Your task to perform on an android device: Empty the shopping cart on bestbuy. Add "razer huntsman" to the cart on bestbuy Image 0: 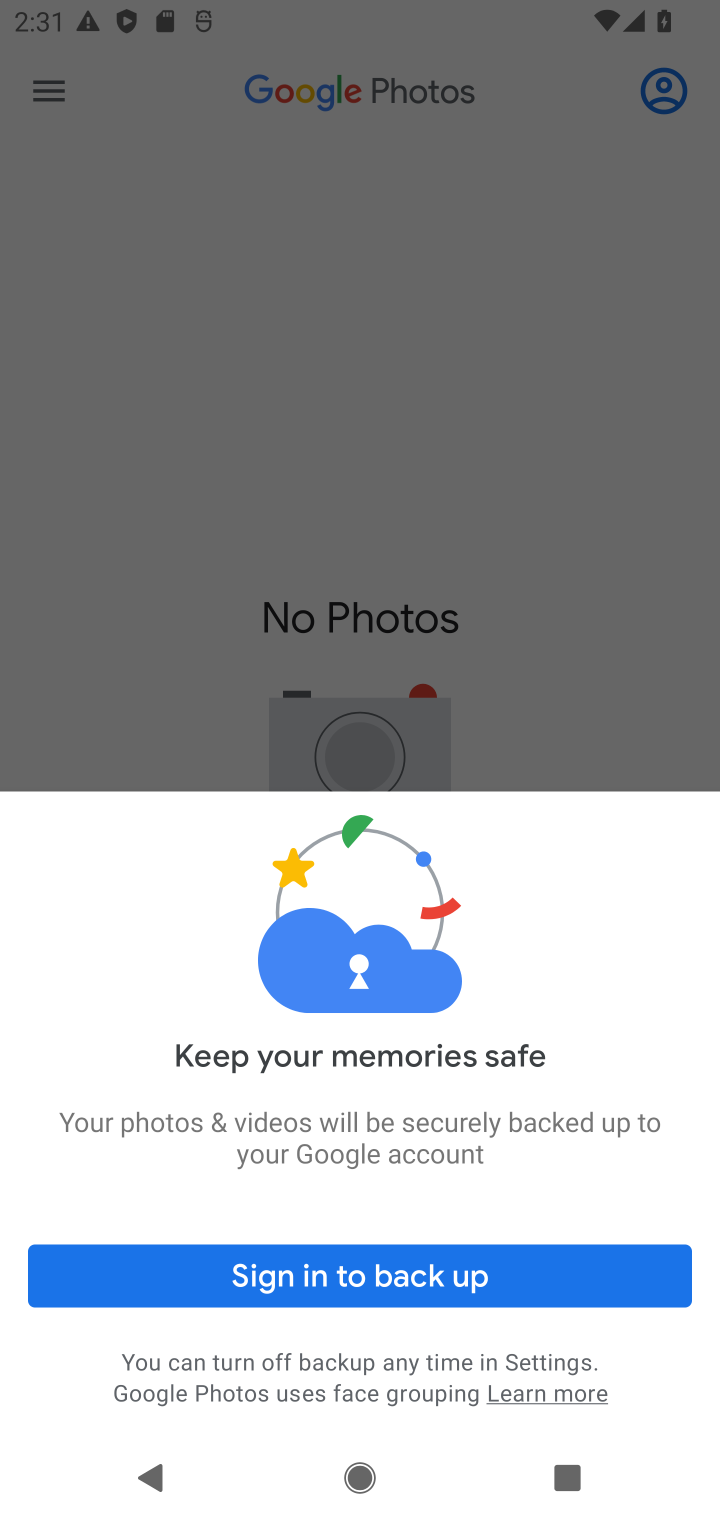
Step 0: press home button
Your task to perform on an android device: Empty the shopping cart on bestbuy. Add "razer huntsman" to the cart on bestbuy Image 1: 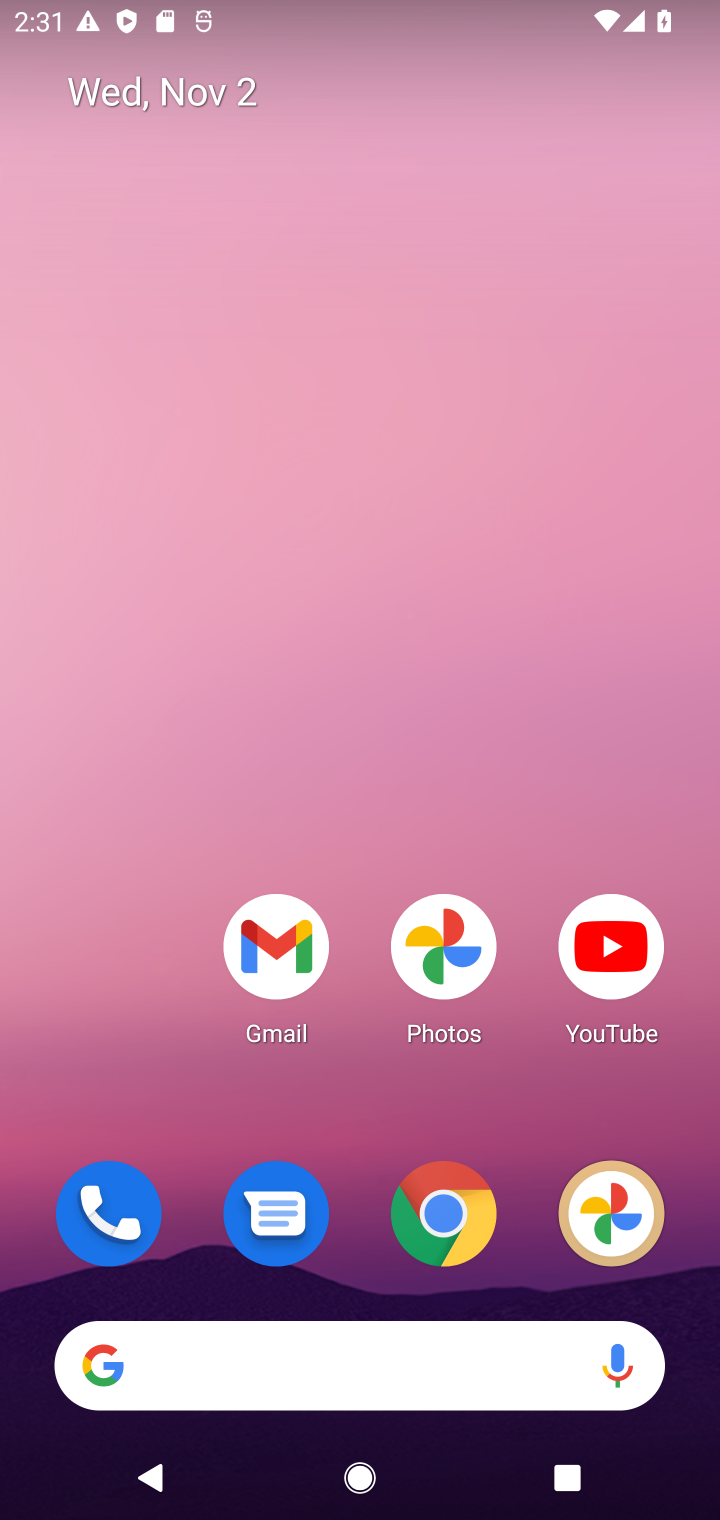
Step 1: click (431, 1198)
Your task to perform on an android device: Empty the shopping cart on bestbuy. Add "razer huntsman" to the cart on bestbuy Image 2: 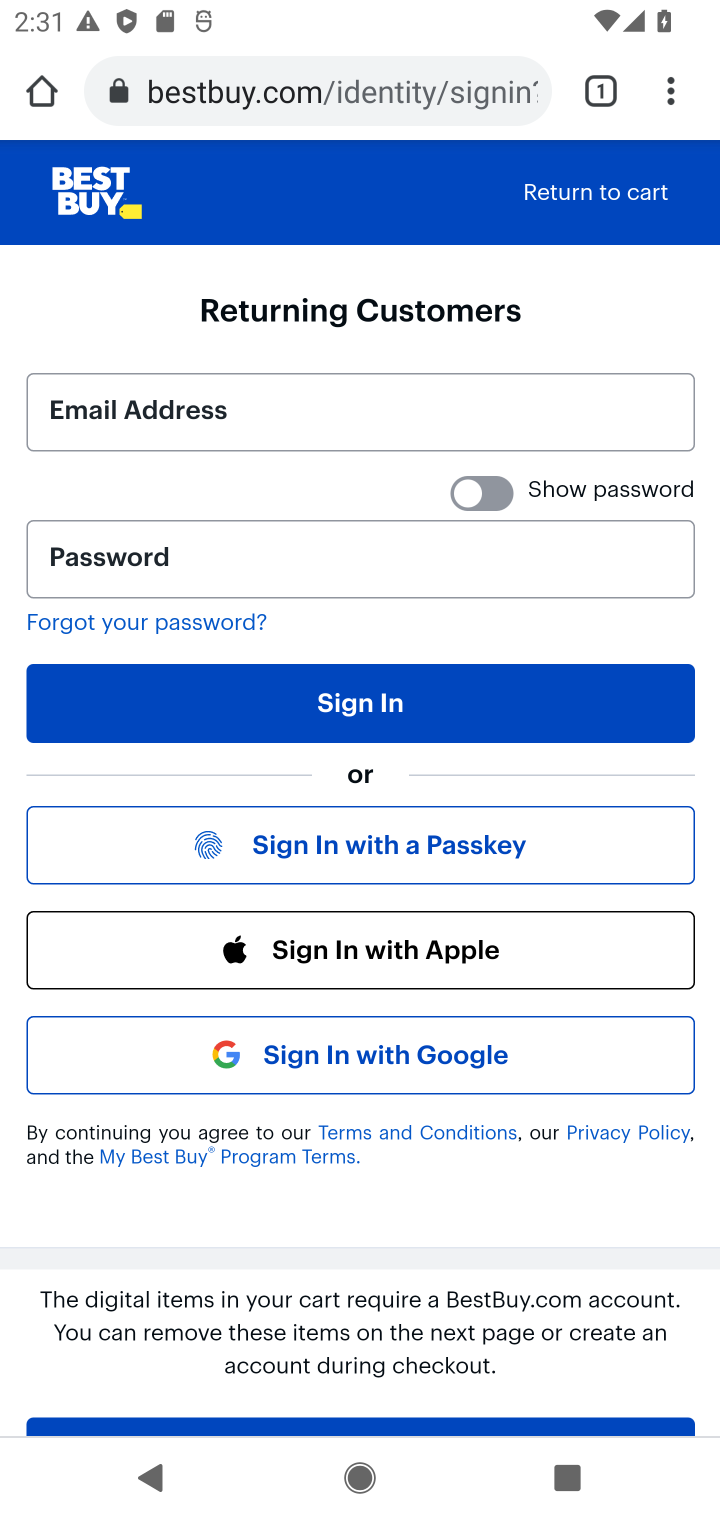
Step 2: click (579, 187)
Your task to perform on an android device: Empty the shopping cart on bestbuy. Add "razer huntsman" to the cart on bestbuy Image 3: 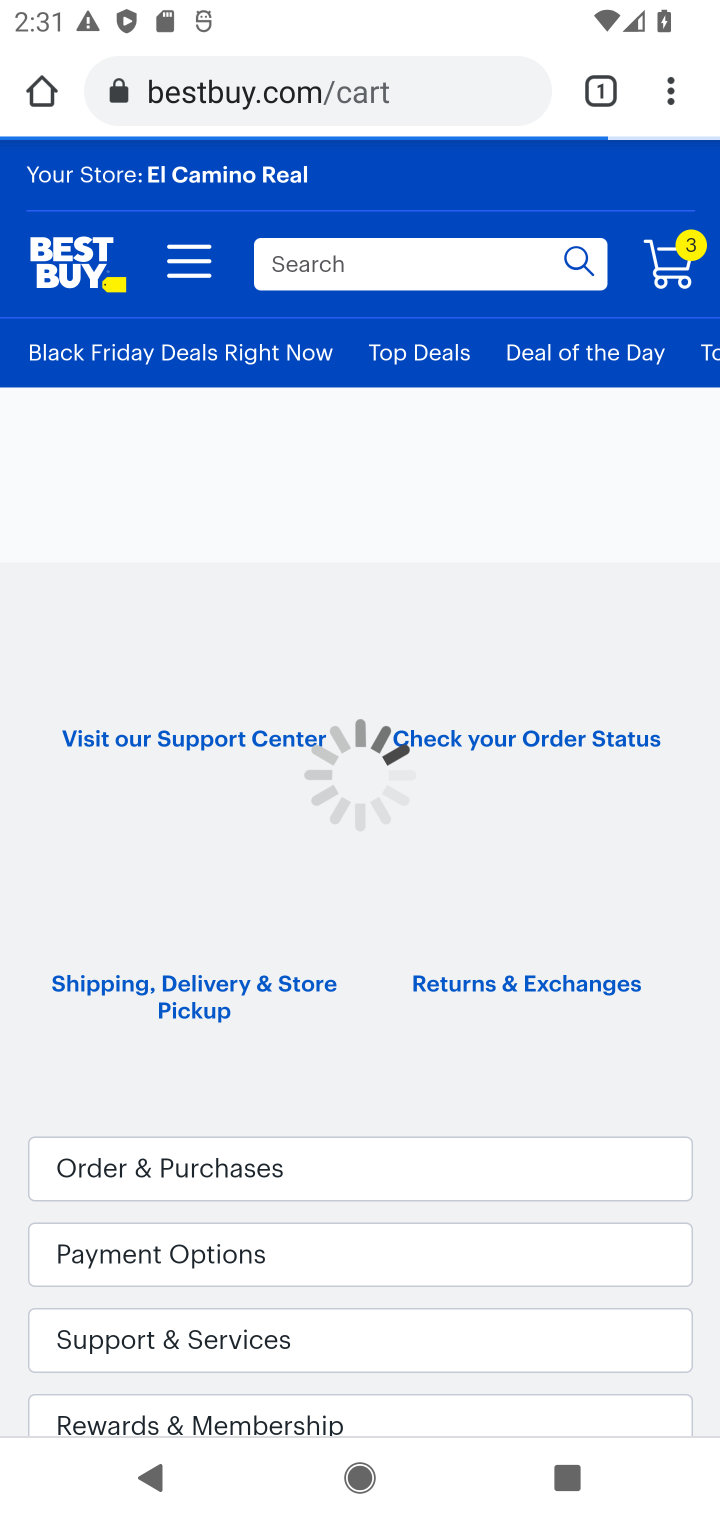
Step 3: click (672, 276)
Your task to perform on an android device: Empty the shopping cart on bestbuy. Add "razer huntsman" to the cart on bestbuy Image 4: 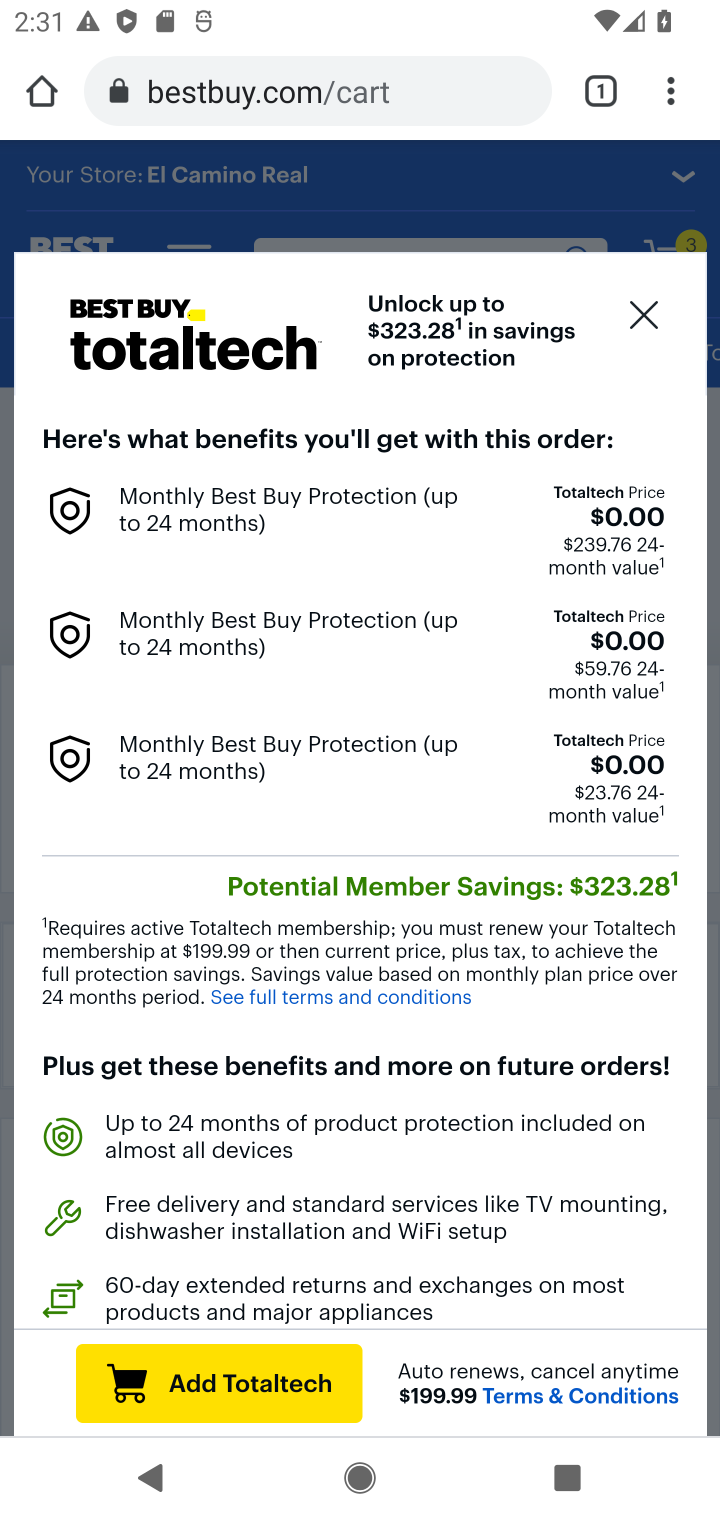
Step 4: click (641, 320)
Your task to perform on an android device: Empty the shopping cart on bestbuy. Add "razer huntsman" to the cart on bestbuy Image 5: 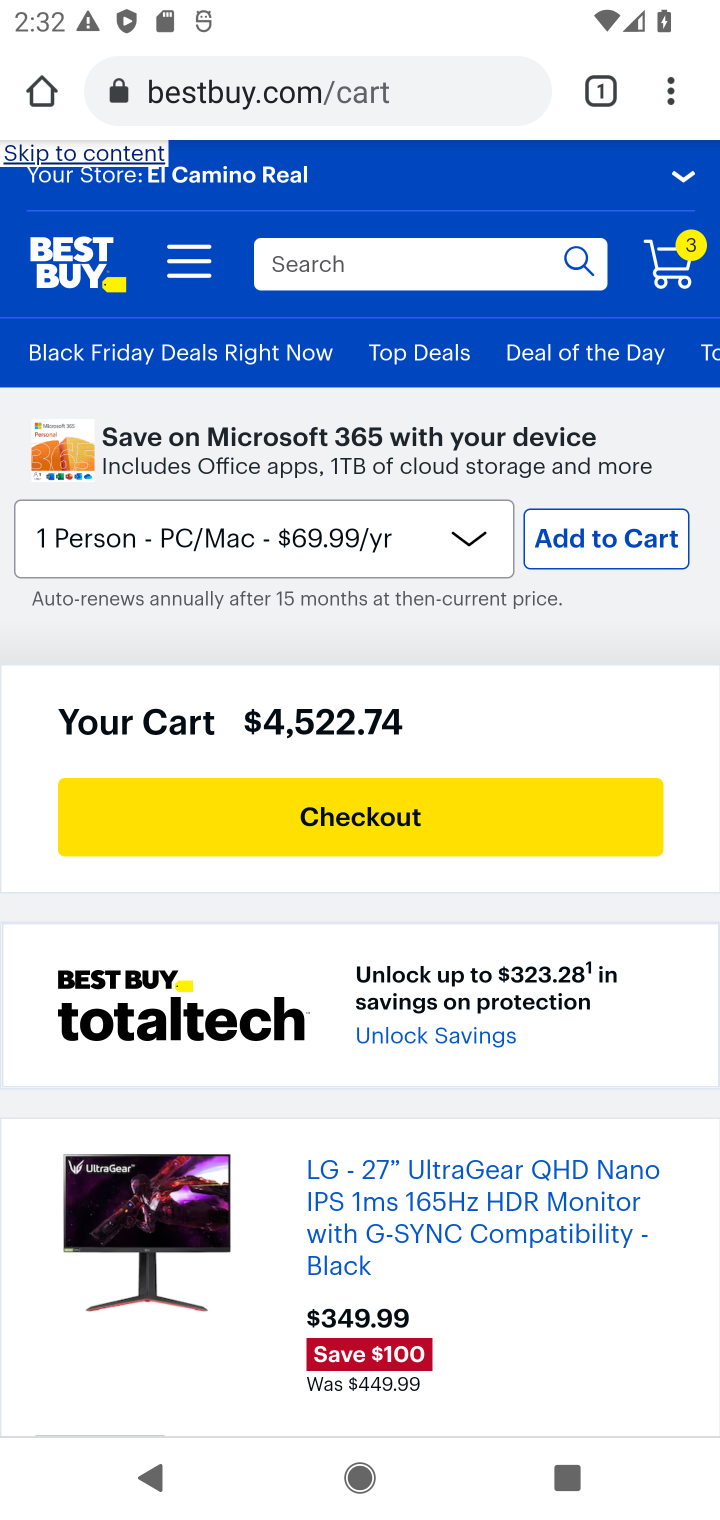
Step 5: drag from (628, 907) to (403, 74)
Your task to perform on an android device: Empty the shopping cart on bestbuy. Add "razer huntsman" to the cart on bestbuy Image 6: 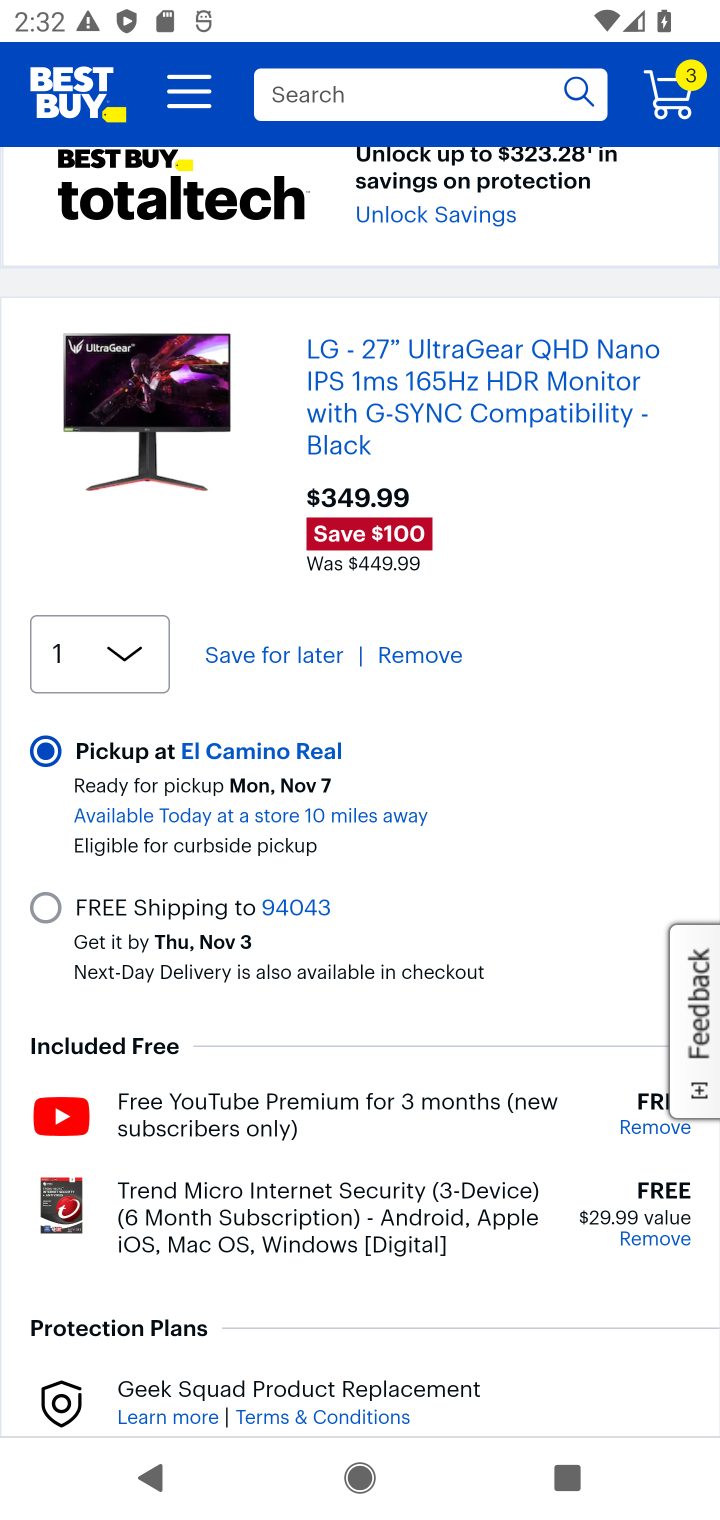
Step 6: click (409, 653)
Your task to perform on an android device: Empty the shopping cart on bestbuy. Add "razer huntsman" to the cart on bestbuy Image 7: 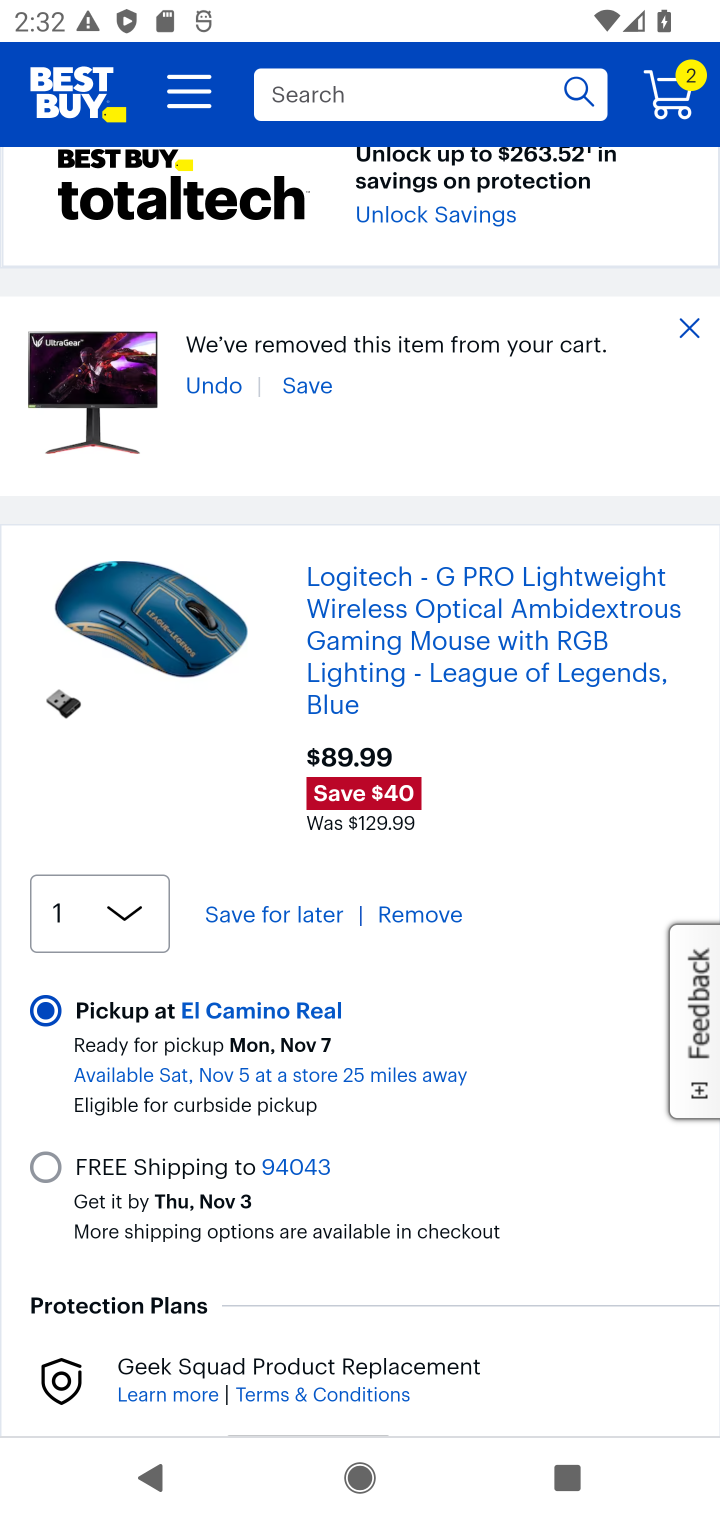
Step 7: click (410, 920)
Your task to perform on an android device: Empty the shopping cart on bestbuy. Add "razer huntsman" to the cart on bestbuy Image 8: 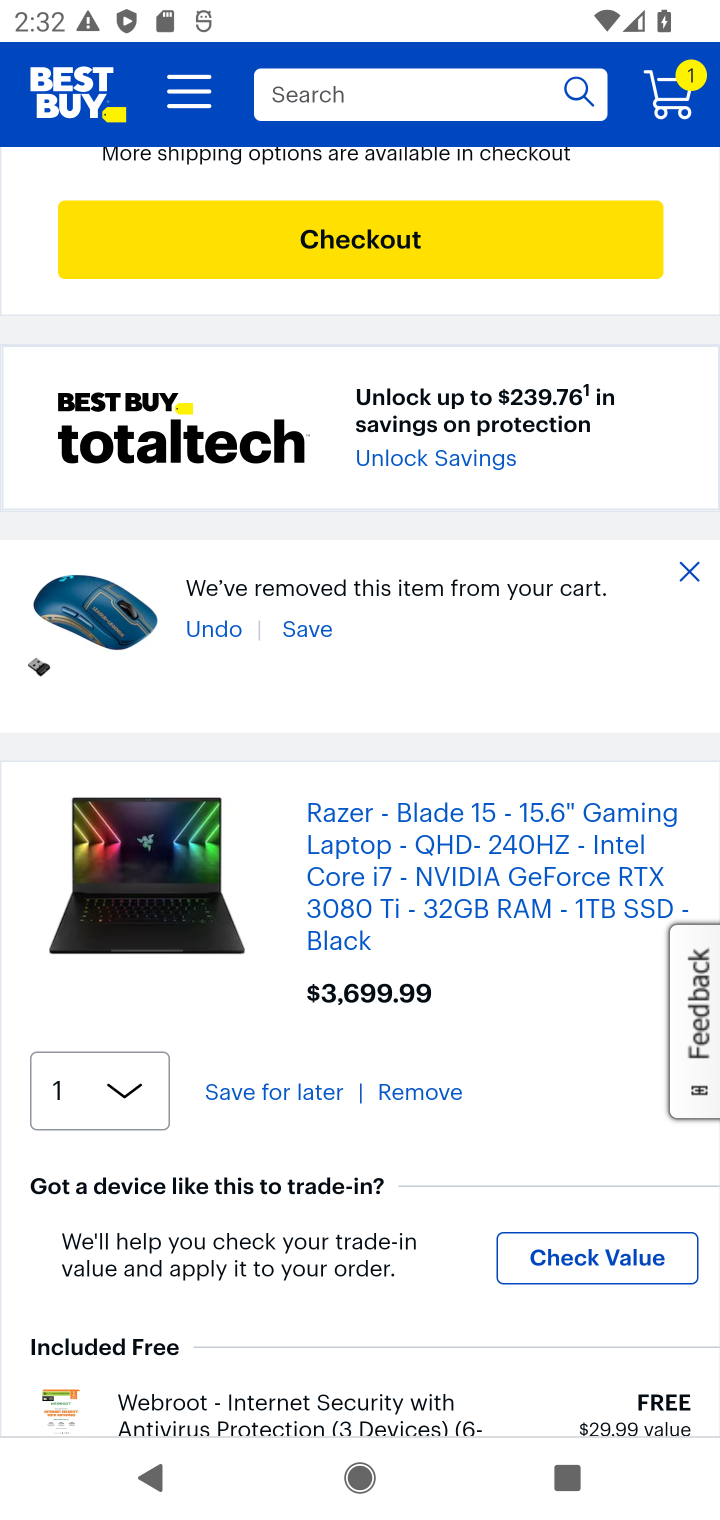
Step 8: click (416, 1099)
Your task to perform on an android device: Empty the shopping cart on bestbuy. Add "razer huntsman" to the cart on bestbuy Image 9: 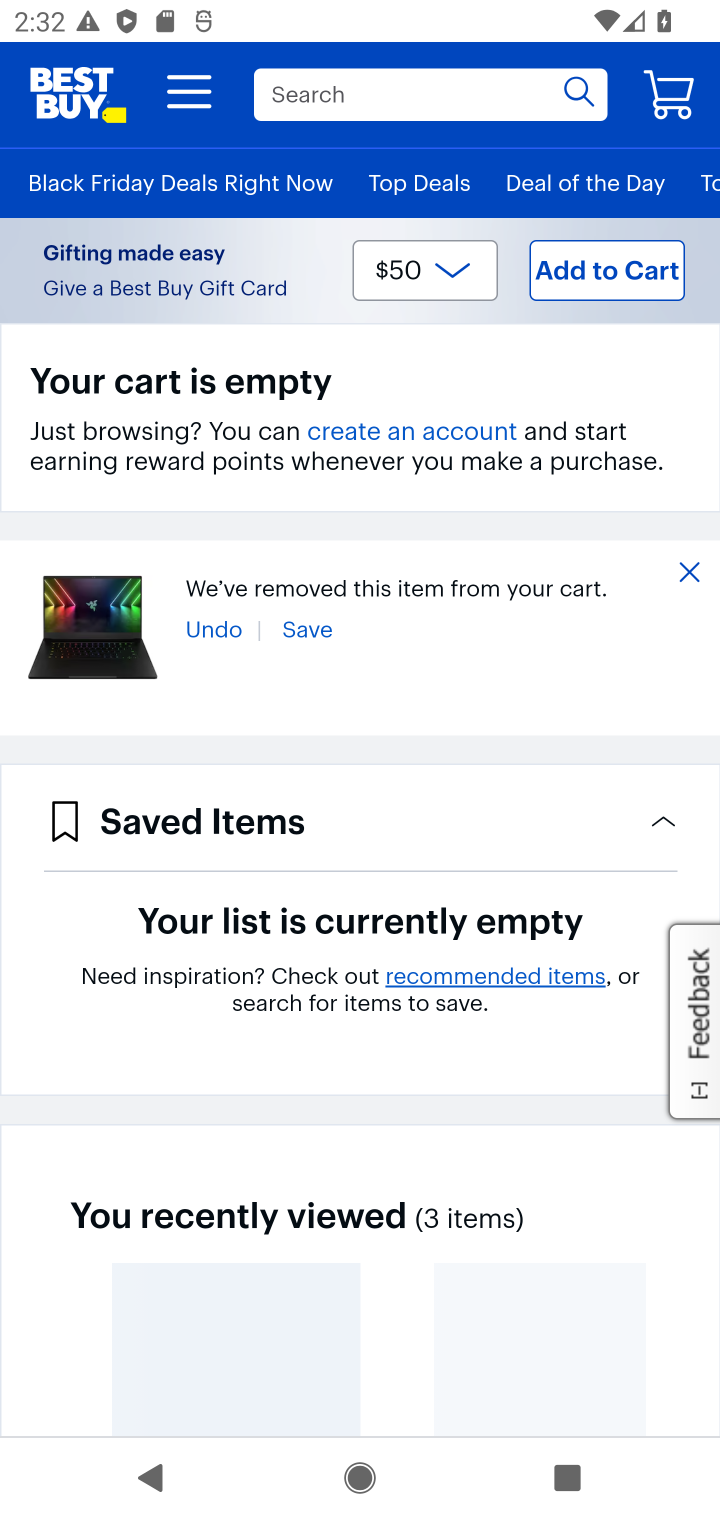
Step 9: click (388, 93)
Your task to perform on an android device: Empty the shopping cart on bestbuy. Add "razer huntsman" to the cart on bestbuy Image 10: 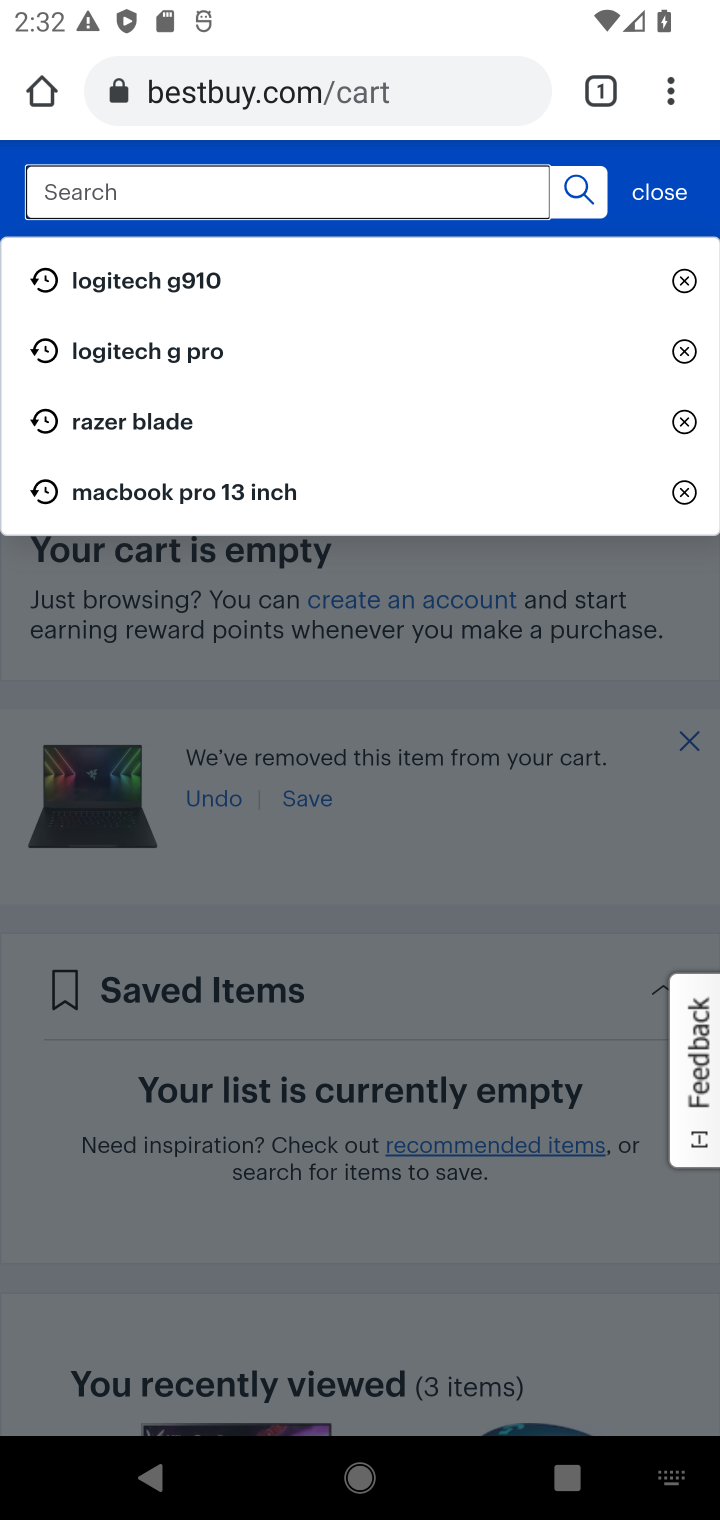
Step 10: type "razer huntsman"
Your task to perform on an android device: Empty the shopping cart on bestbuy. Add "razer huntsman" to the cart on bestbuy Image 11: 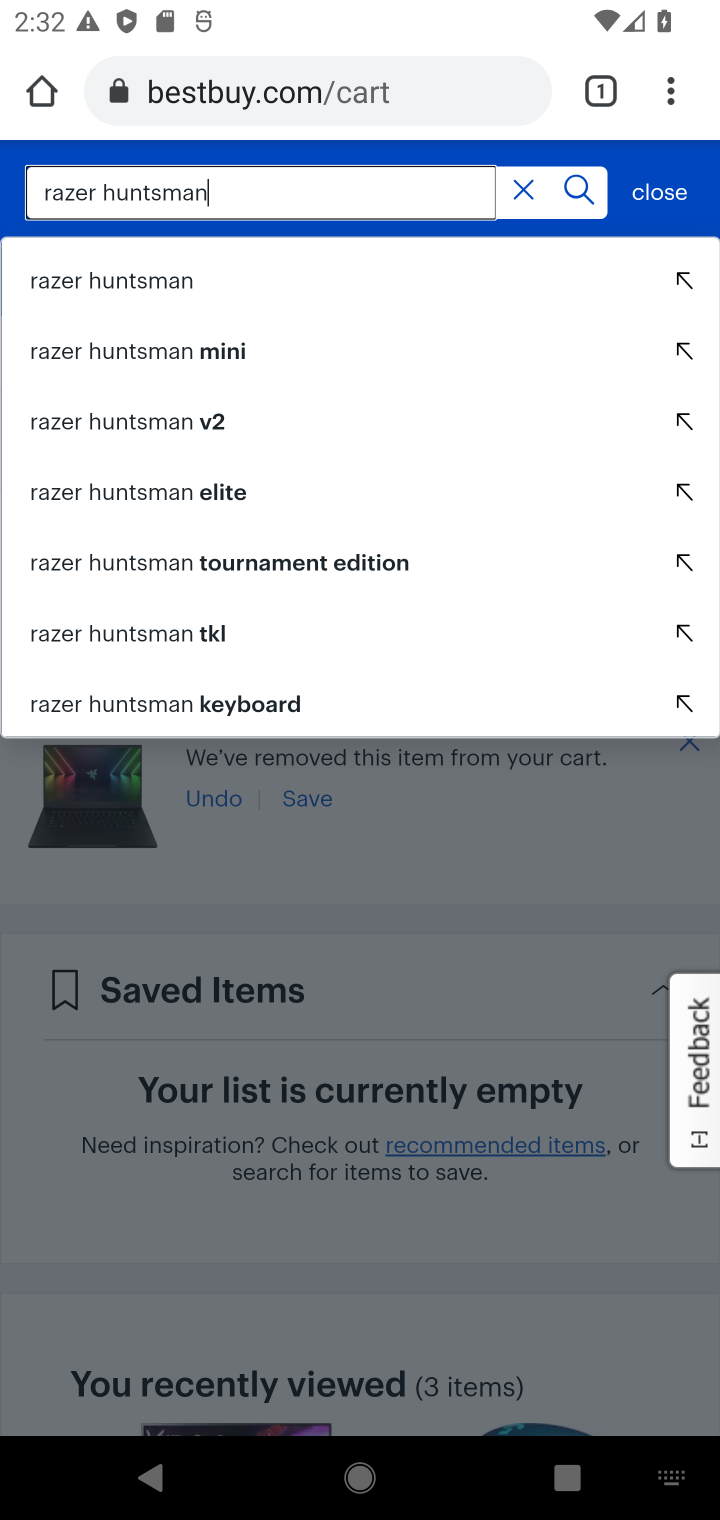
Step 11: click (118, 294)
Your task to perform on an android device: Empty the shopping cart on bestbuy. Add "razer huntsman" to the cart on bestbuy Image 12: 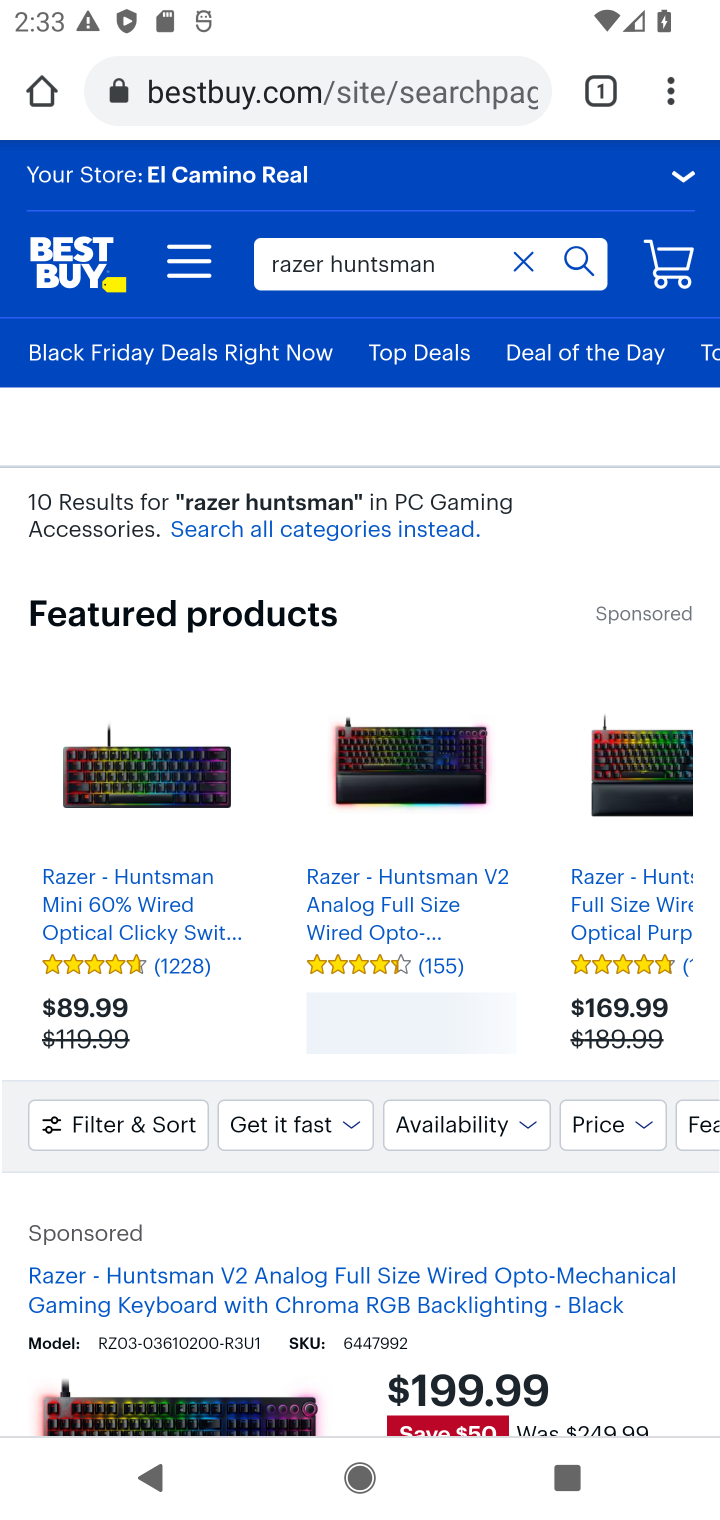
Step 12: drag from (336, 1185) to (240, 636)
Your task to perform on an android device: Empty the shopping cart on bestbuy. Add "razer huntsman" to the cart on bestbuy Image 13: 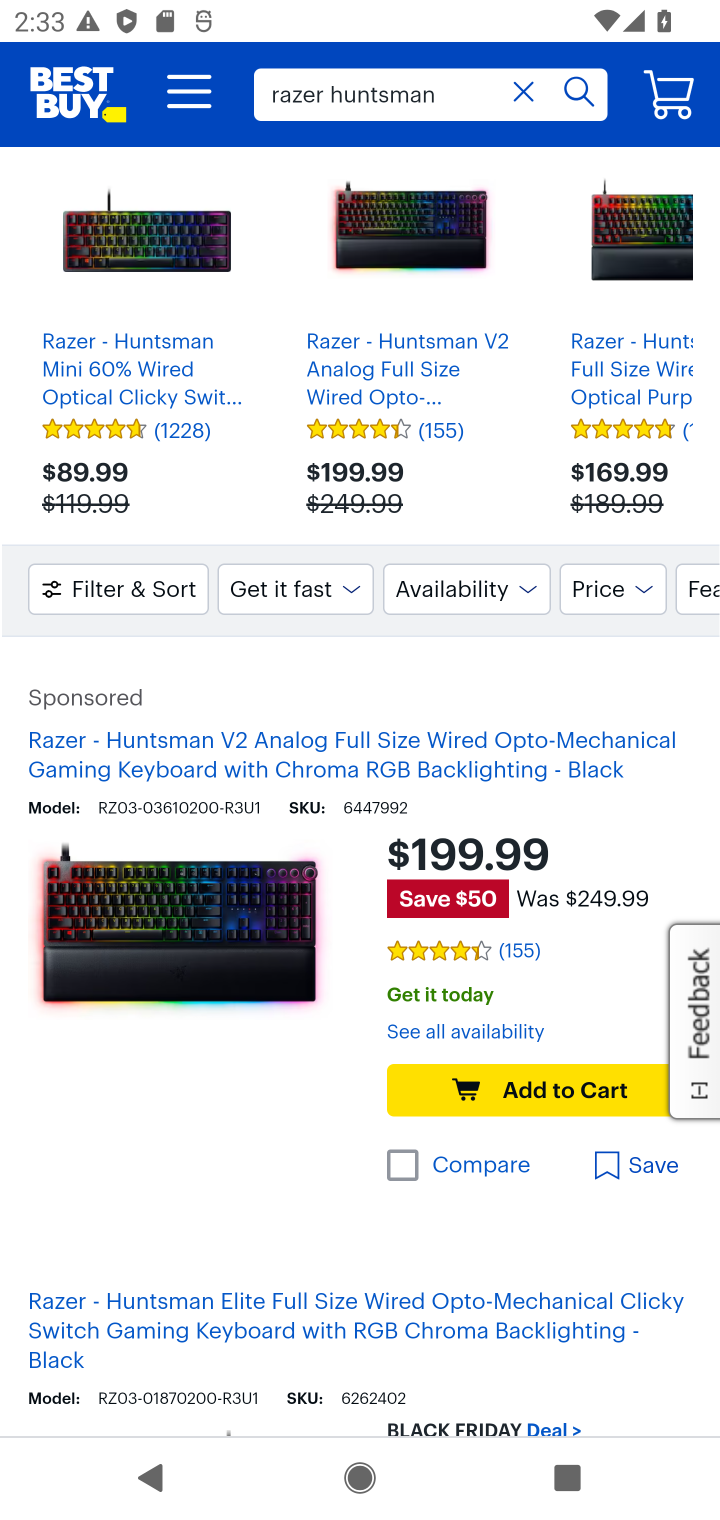
Step 13: click (171, 767)
Your task to perform on an android device: Empty the shopping cart on bestbuy. Add "razer huntsman" to the cart on bestbuy Image 14: 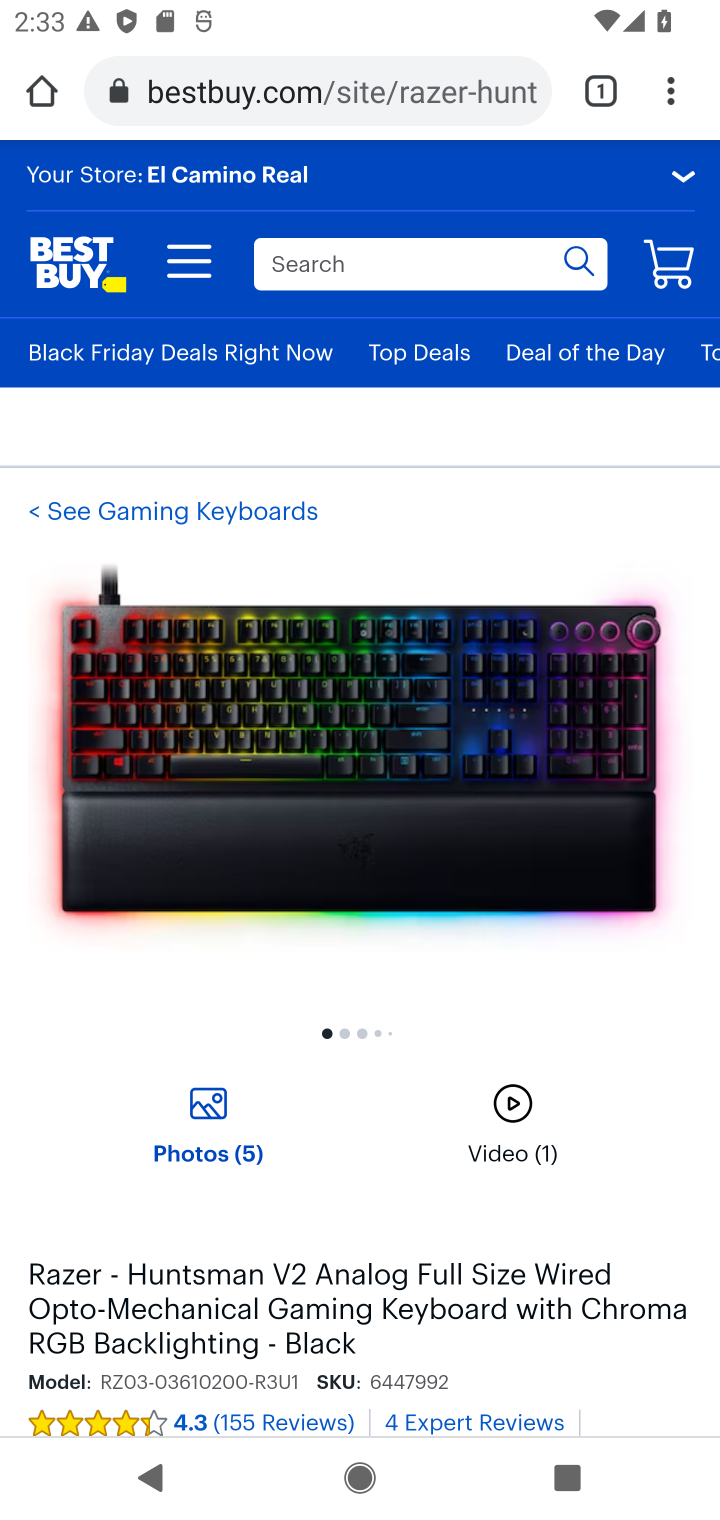
Step 14: drag from (360, 1217) to (292, 295)
Your task to perform on an android device: Empty the shopping cart on bestbuy. Add "razer huntsman" to the cart on bestbuy Image 15: 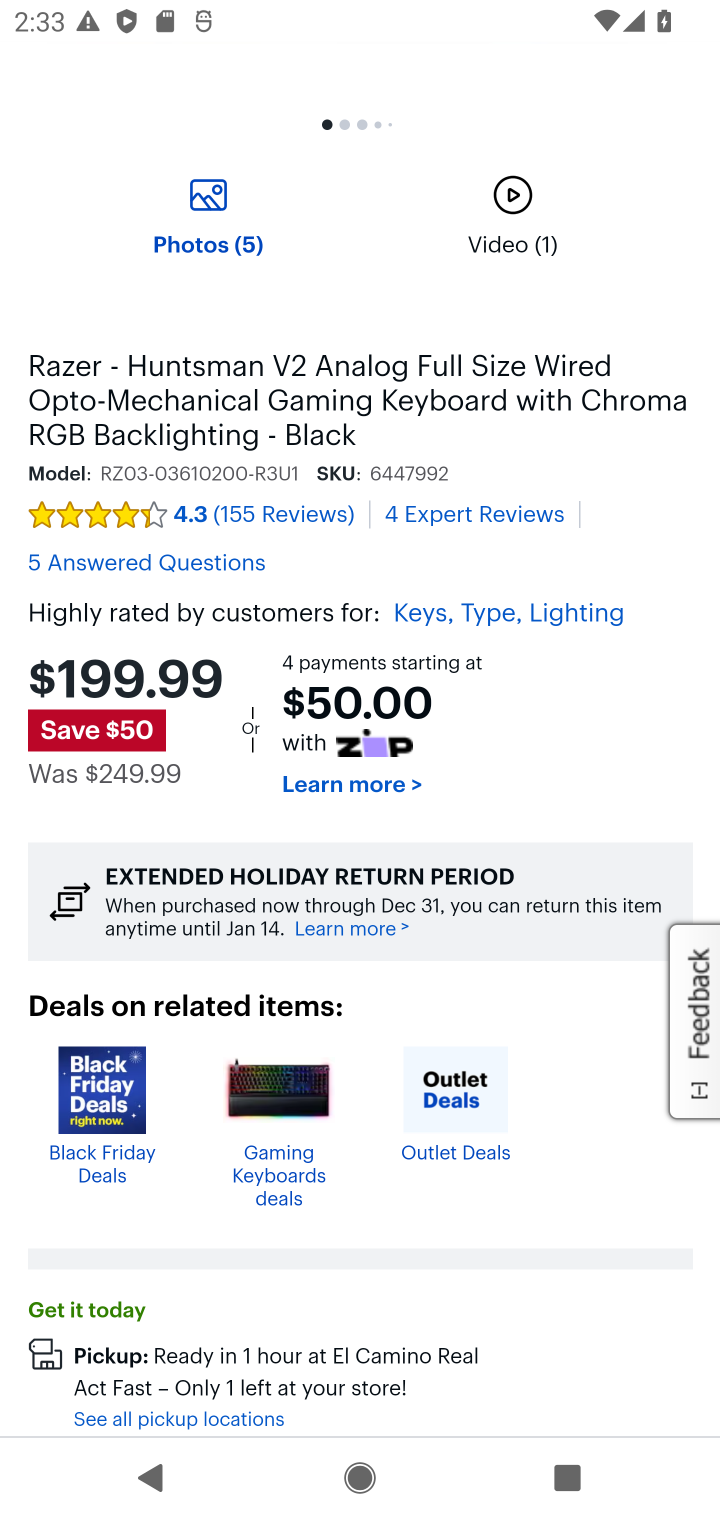
Step 15: drag from (467, 1256) to (441, 530)
Your task to perform on an android device: Empty the shopping cart on bestbuy. Add "razer huntsman" to the cart on bestbuy Image 16: 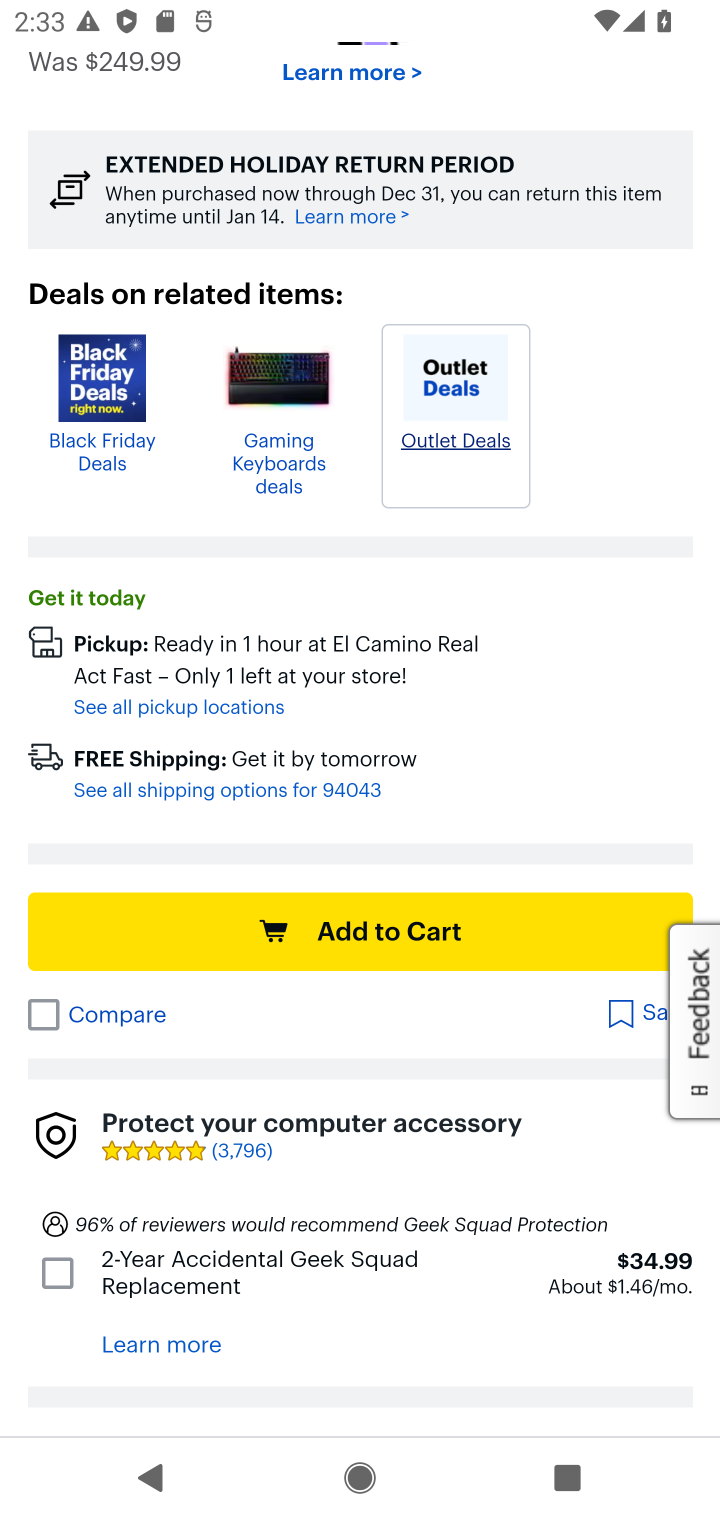
Step 16: click (374, 942)
Your task to perform on an android device: Empty the shopping cart on bestbuy. Add "razer huntsman" to the cart on bestbuy Image 17: 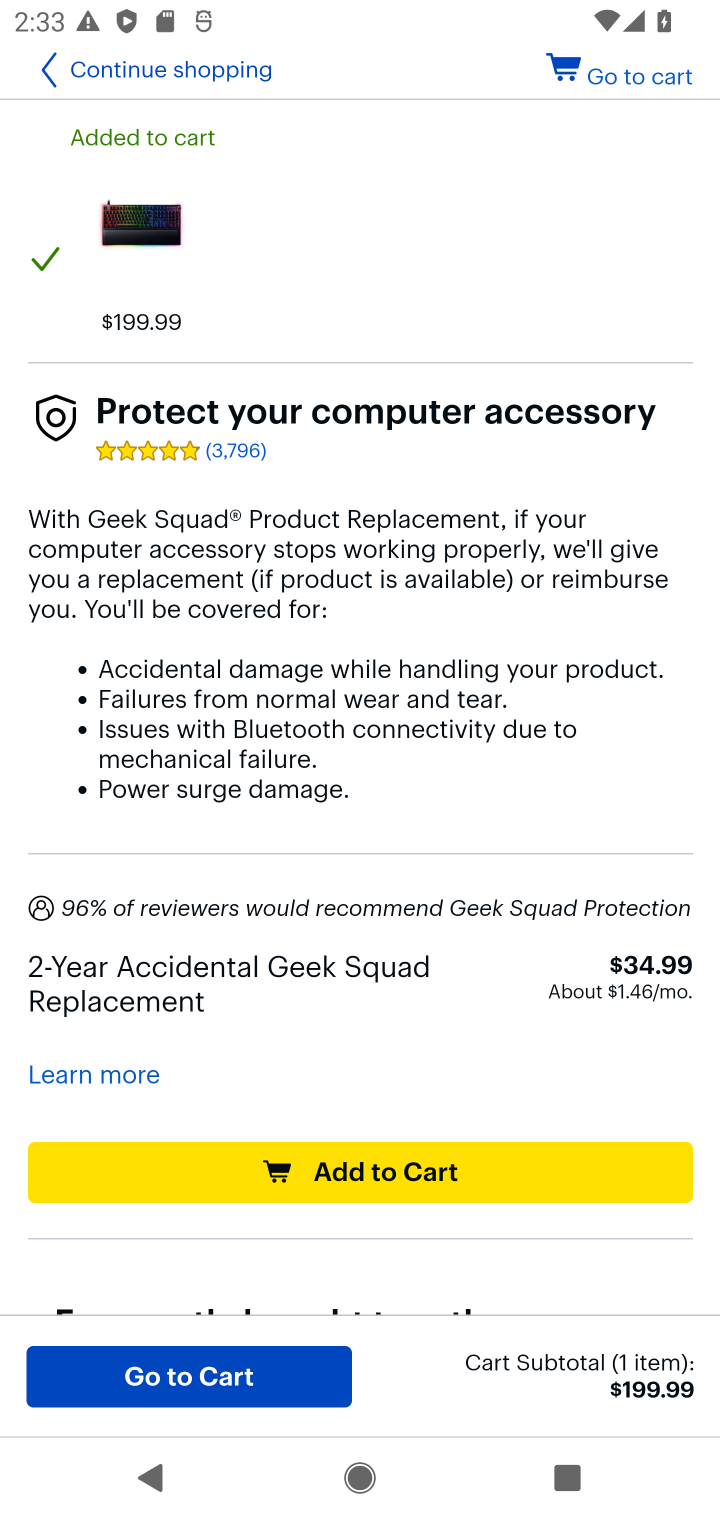
Step 17: task complete